Your task to perform on an android device: What's the weather today? Image 0: 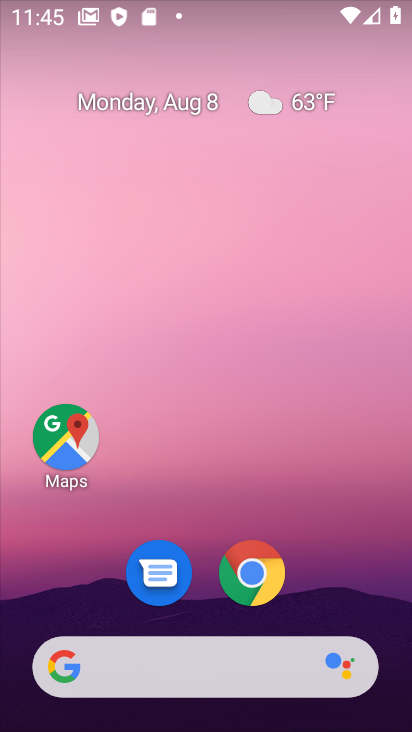
Step 0: drag from (208, 633) to (121, 121)
Your task to perform on an android device: What's the weather today? Image 1: 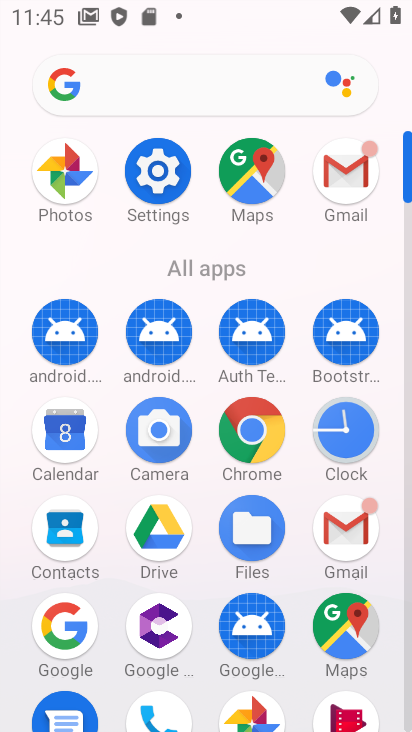
Step 1: click (58, 617)
Your task to perform on an android device: What's the weather today? Image 2: 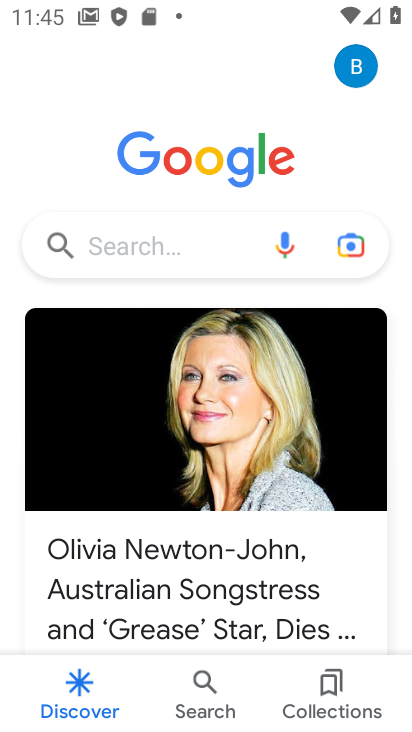
Step 2: click (119, 255)
Your task to perform on an android device: What's the weather today? Image 3: 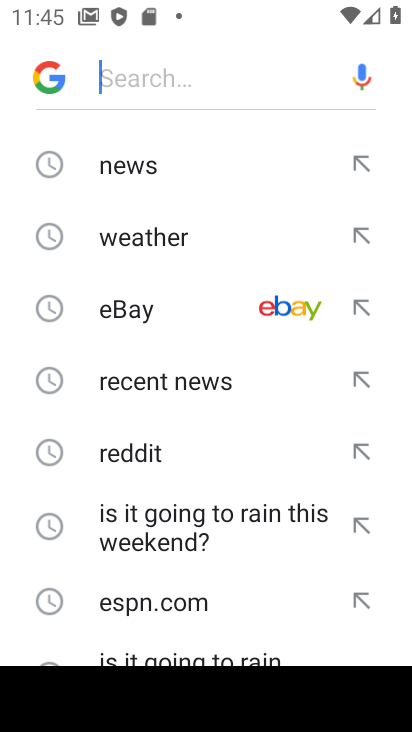
Step 3: click (150, 237)
Your task to perform on an android device: What's the weather today? Image 4: 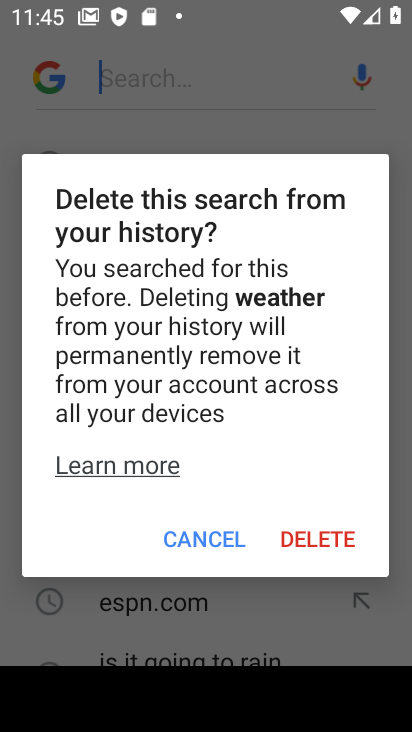
Step 4: click (227, 539)
Your task to perform on an android device: What's the weather today? Image 5: 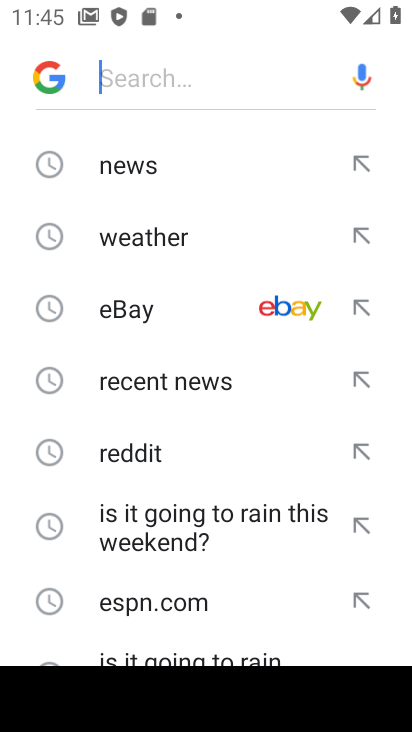
Step 5: click (180, 239)
Your task to perform on an android device: What's the weather today? Image 6: 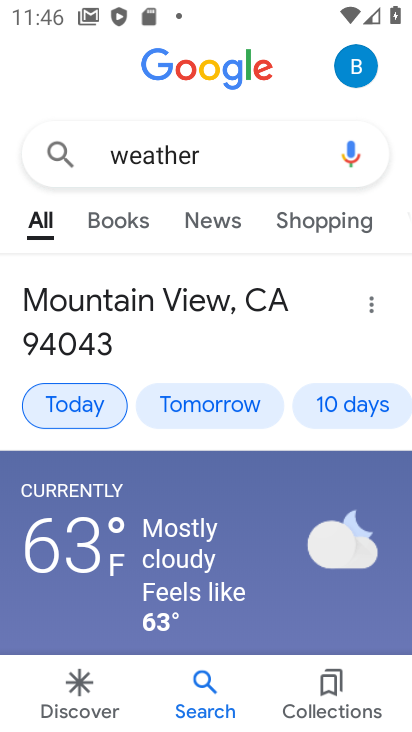
Step 6: task complete